Your task to perform on an android device: Go to ESPN.com Image 0: 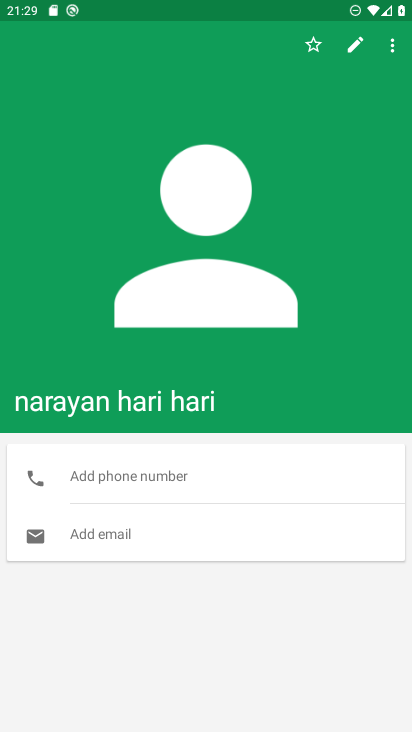
Step 0: press home button
Your task to perform on an android device: Go to ESPN.com Image 1: 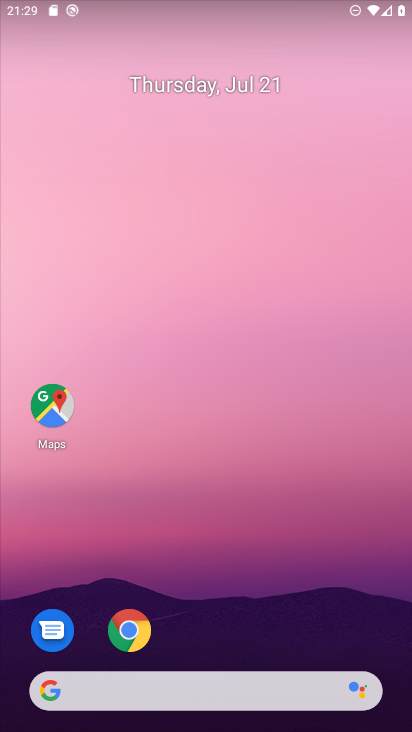
Step 1: drag from (337, 589) to (313, 121)
Your task to perform on an android device: Go to ESPN.com Image 2: 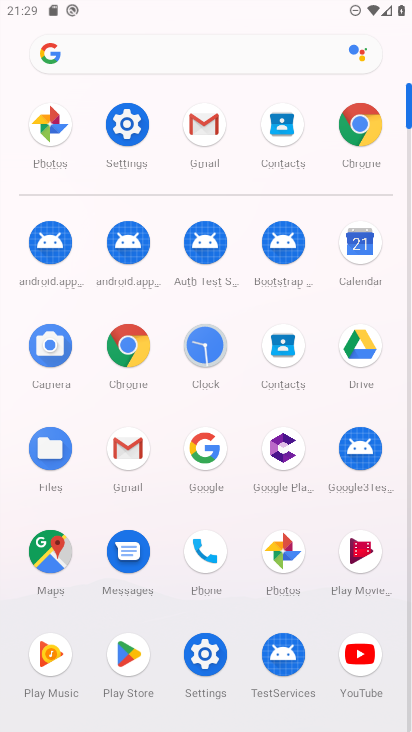
Step 2: click (355, 125)
Your task to perform on an android device: Go to ESPN.com Image 3: 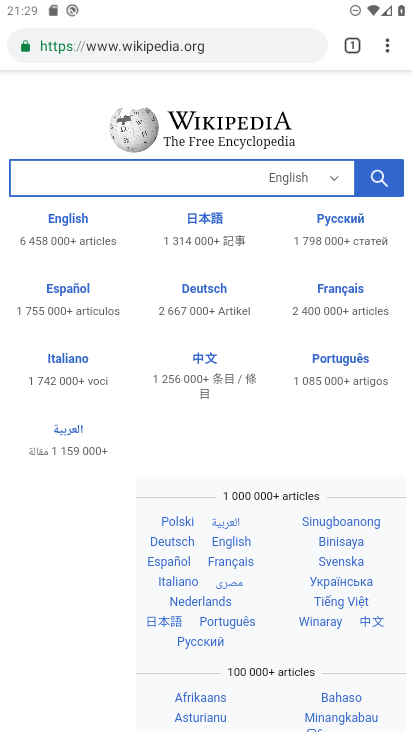
Step 3: click (220, 54)
Your task to perform on an android device: Go to ESPN.com Image 4: 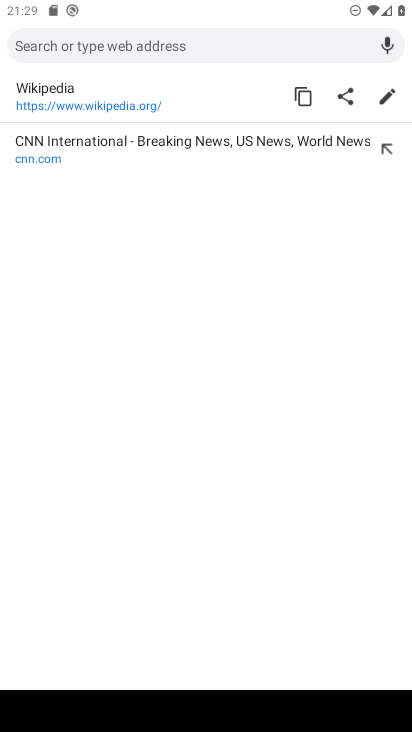
Step 4: type "espn.com"
Your task to perform on an android device: Go to ESPN.com Image 5: 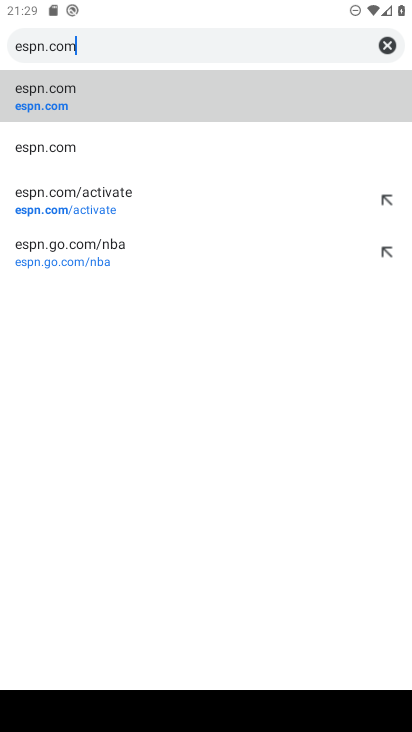
Step 5: click (110, 112)
Your task to perform on an android device: Go to ESPN.com Image 6: 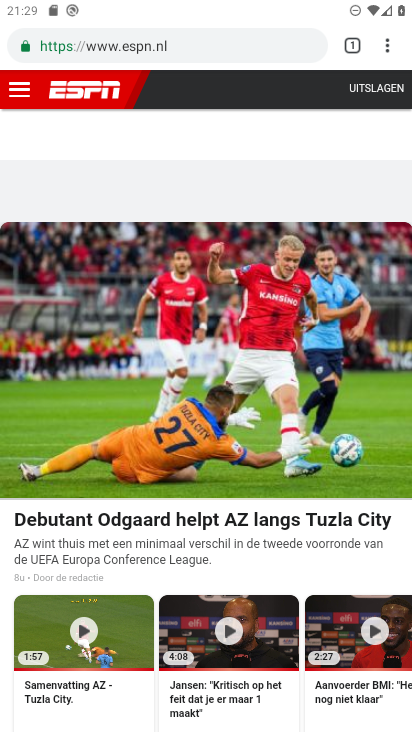
Step 6: task complete